Your task to perform on an android device: What's on my calendar today? Image 0: 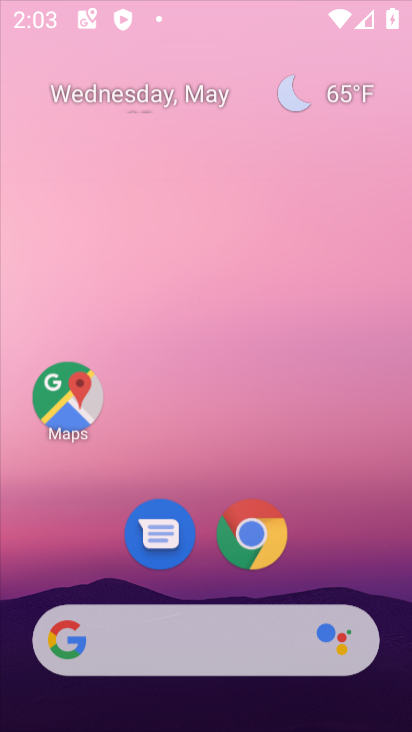
Step 0: click (202, 11)
Your task to perform on an android device: What's on my calendar today? Image 1: 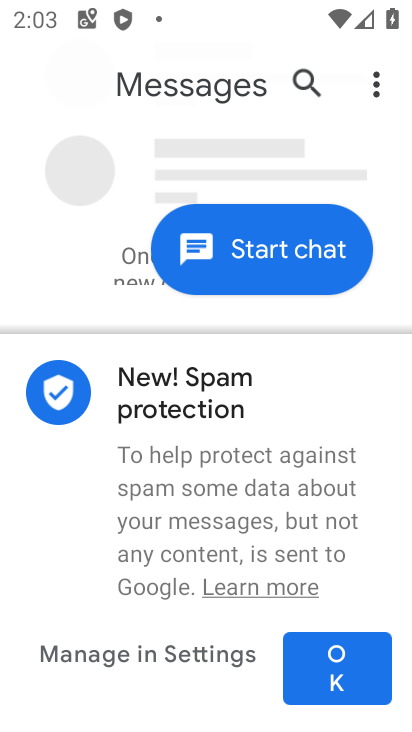
Step 1: press home button
Your task to perform on an android device: What's on my calendar today? Image 2: 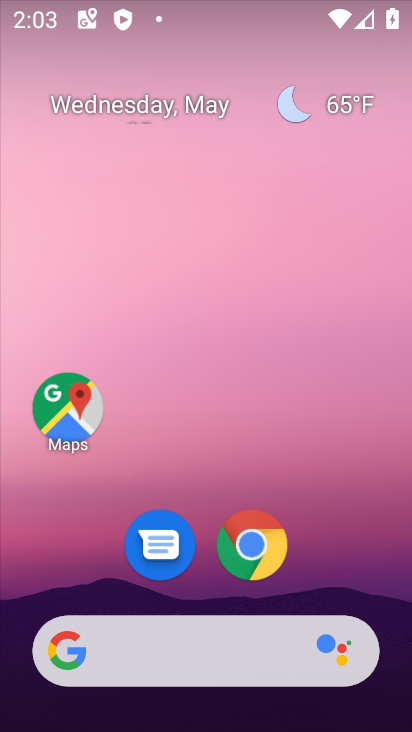
Step 2: click (164, 100)
Your task to perform on an android device: What's on my calendar today? Image 3: 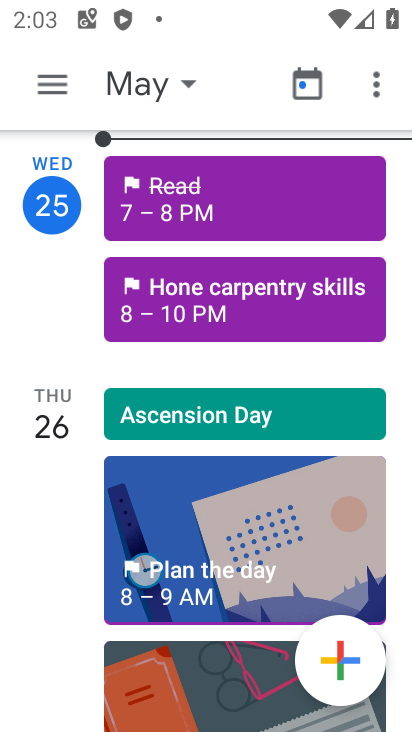
Step 3: task complete